Your task to perform on an android device: turn on the 24-hour format for clock Image 0: 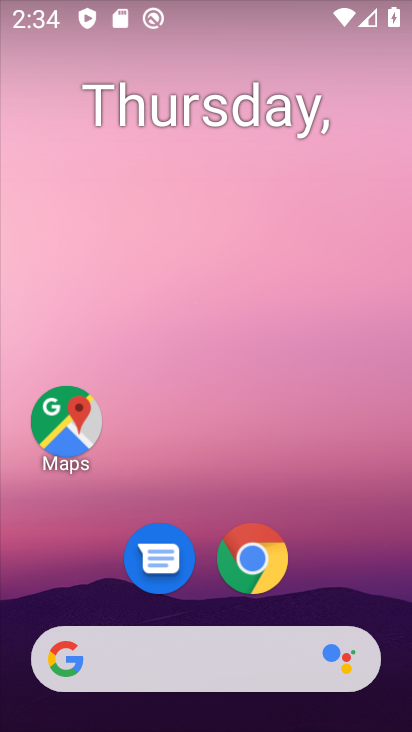
Step 0: click (347, 29)
Your task to perform on an android device: turn on the 24-hour format for clock Image 1: 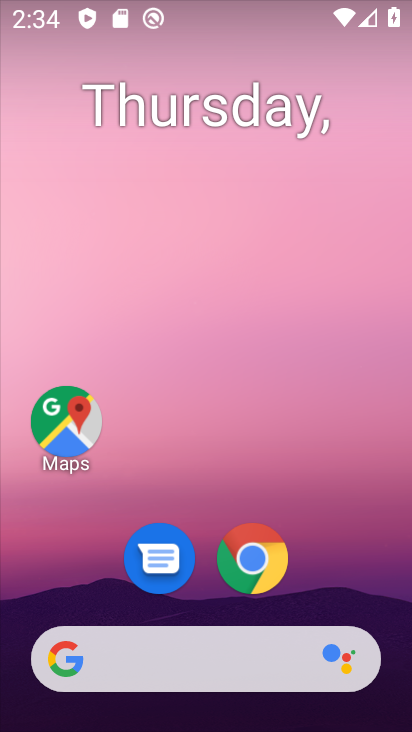
Step 1: drag from (182, 623) to (299, 111)
Your task to perform on an android device: turn on the 24-hour format for clock Image 2: 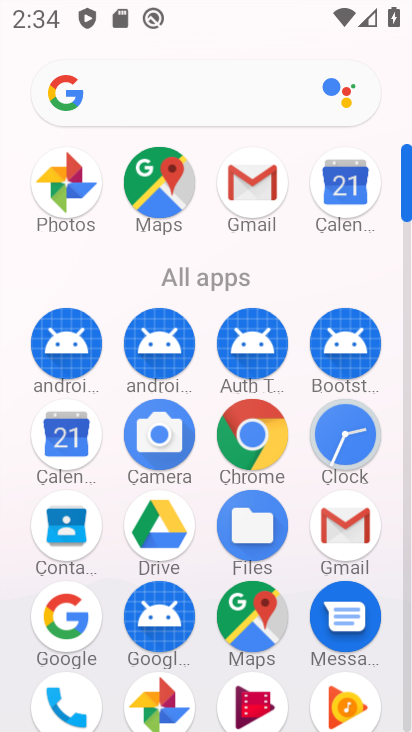
Step 2: click (361, 447)
Your task to perform on an android device: turn on the 24-hour format for clock Image 3: 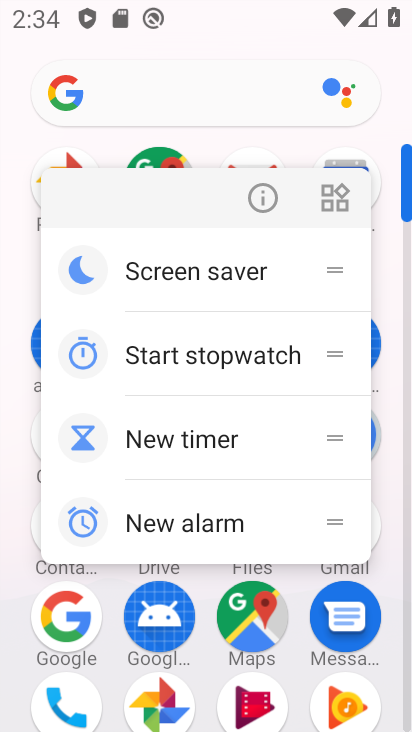
Step 3: click (376, 442)
Your task to perform on an android device: turn on the 24-hour format for clock Image 4: 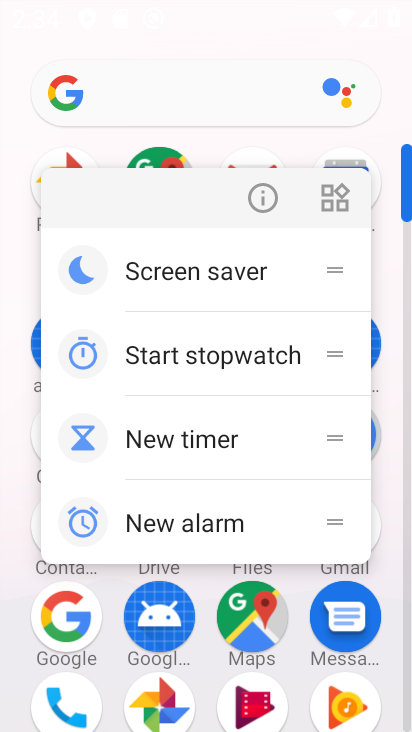
Step 4: click (376, 442)
Your task to perform on an android device: turn on the 24-hour format for clock Image 5: 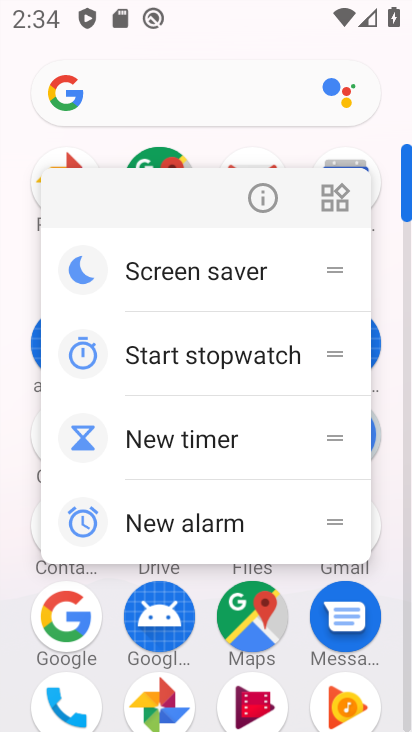
Step 5: click (375, 434)
Your task to perform on an android device: turn on the 24-hour format for clock Image 6: 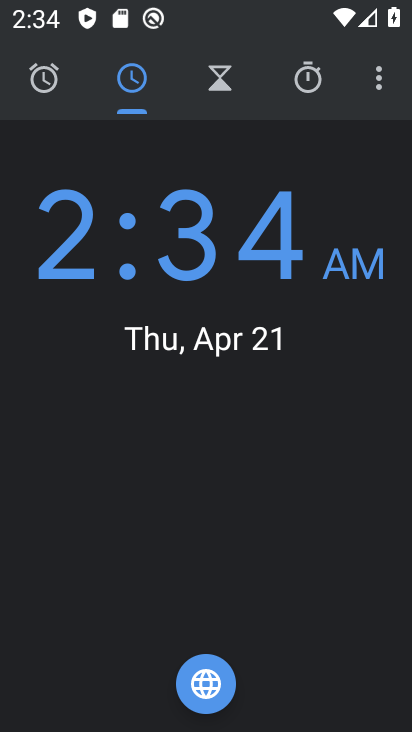
Step 6: click (374, 82)
Your task to perform on an android device: turn on the 24-hour format for clock Image 7: 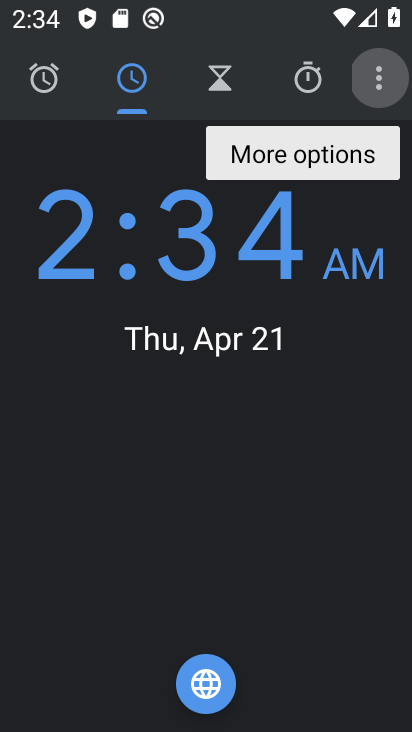
Step 7: click (382, 76)
Your task to perform on an android device: turn on the 24-hour format for clock Image 8: 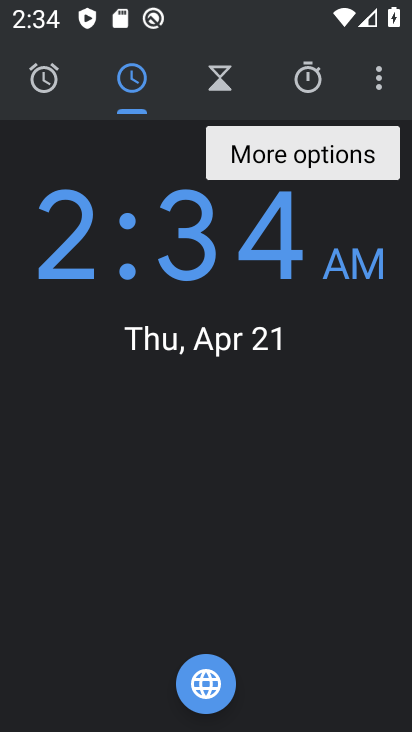
Step 8: click (365, 149)
Your task to perform on an android device: turn on the 24-hour format for clock Image 9: 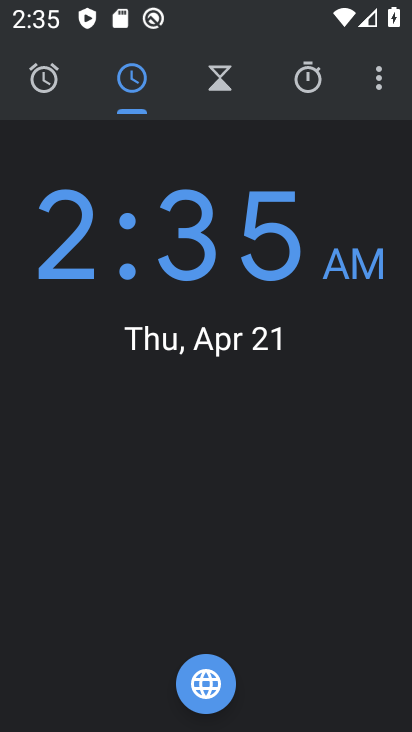
Step 9: click (379, 79)
Your task to perform on an android device: turn on the 24-hour format for clock Image 10: 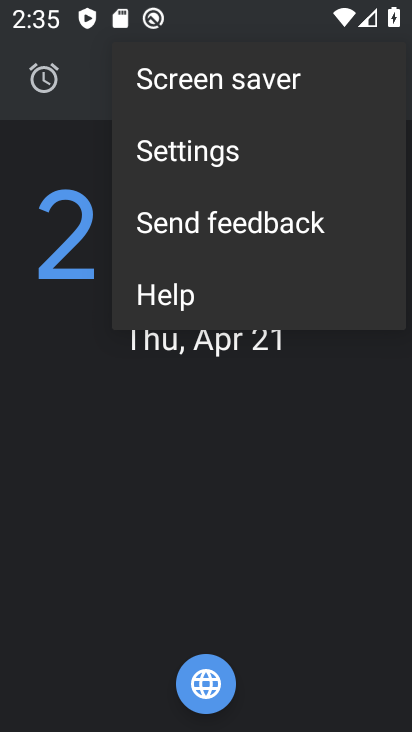
Step 10: click (313, 145)
Your task to perform on an android device: turn on the 24-hour format for clock Image 11: 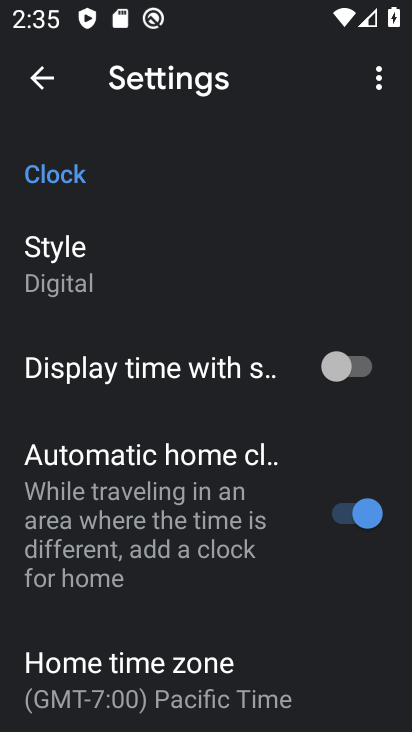
Step 11: drag from (139, 570) to (245, 135)
Your task to perform on an android device: turn on the 24-hour format for clock Image 12: 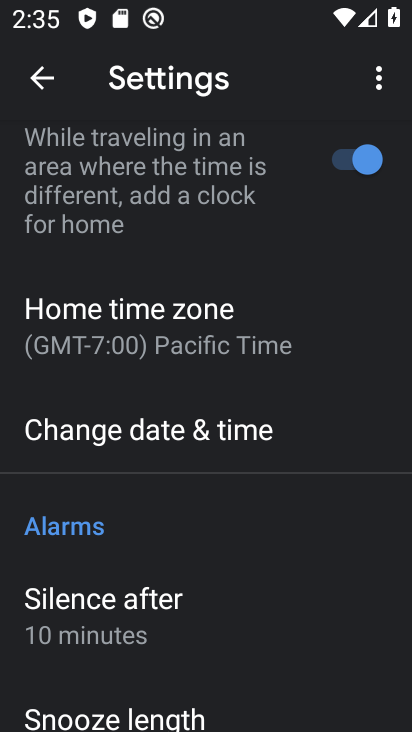
Step 12: click (202, 438)
Your task to perform on an android device: turn on the 24-hour format for clock Image 13: 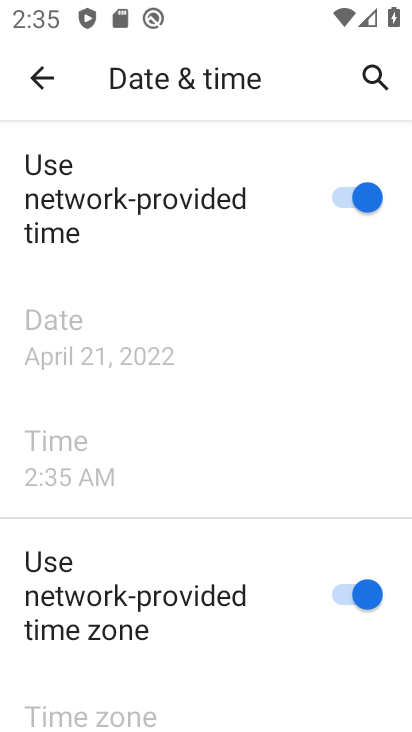
Step 13: drag from (160, 634) to (263, 182)
Your task to perform on an android device: turn on the 24-hour format for clock Image 14: 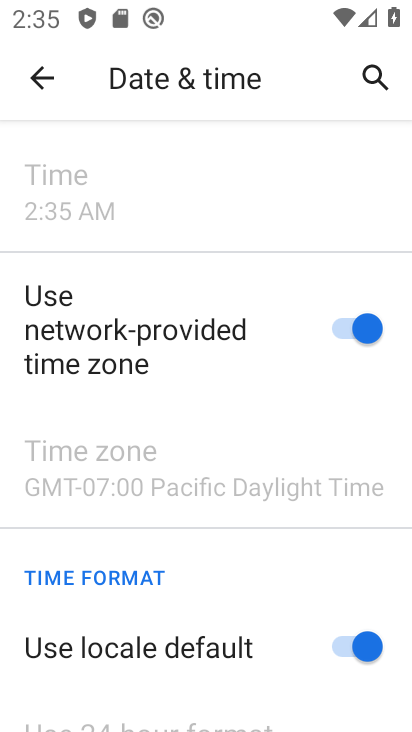
Step 14: drag from (149, 545) to (231, 136)
Your task to perform on an android device: turn on the 24-hour format for clock Image 15: 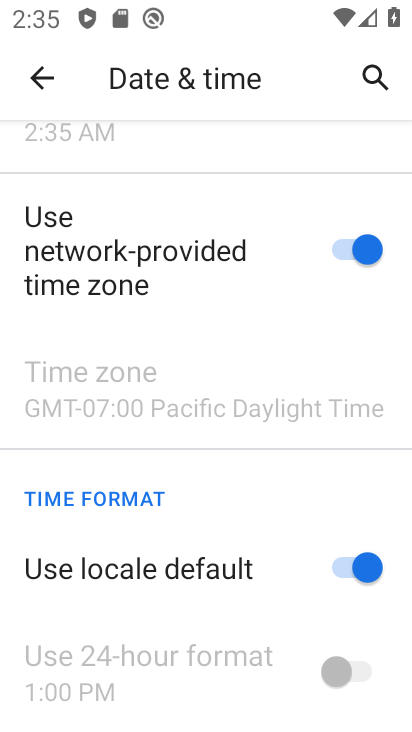
Step 15: click (344, 559)
Your task to perform on an android device: turn on the 24-hour format for clock Image 16: 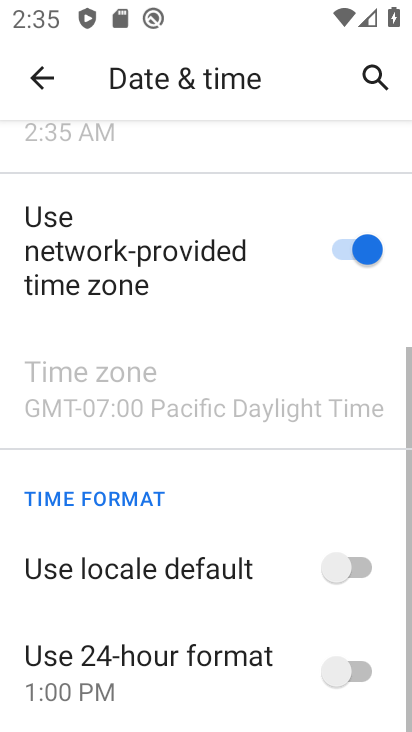
Step 16: click (350, 661)
Your task to perform on an android device: turn on the 24-hour format for clock Image 17: 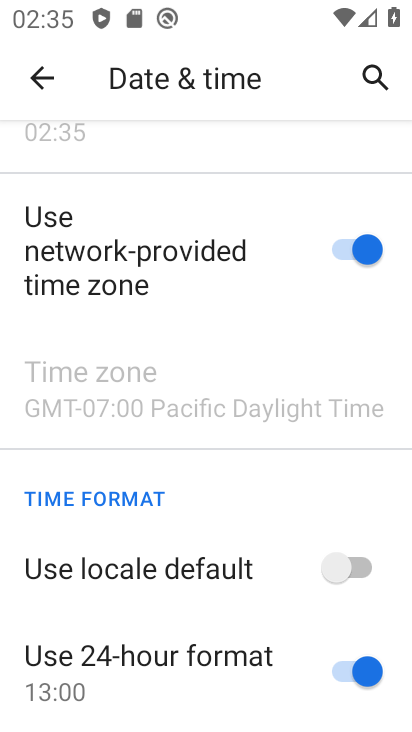
Step 17: task complete